Your task to perform on an android device: Go to notification settings Image 0: 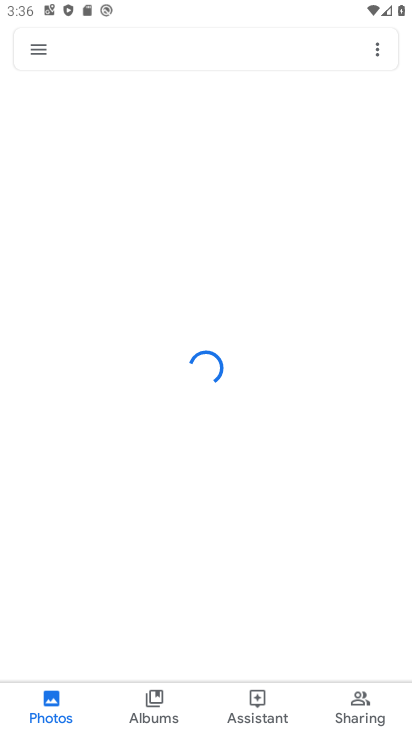
Step 0: press home button
Your task to perform on an android device: Go to notification settings Image 1: 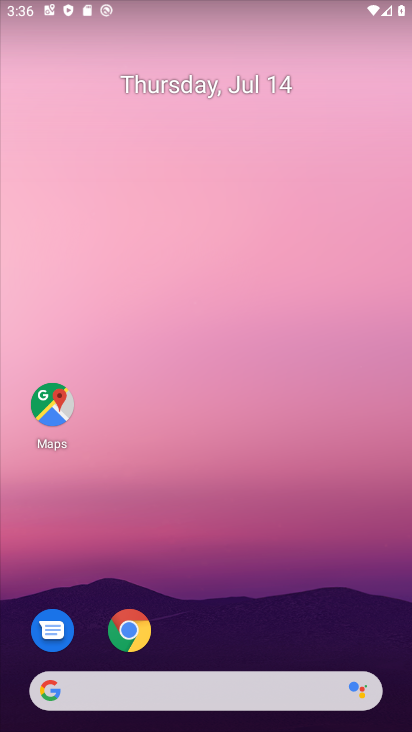
Step 1: drag from (240, 717) to (229, 252)
Your task to perform on an android device: Go to notification settings Image 2: 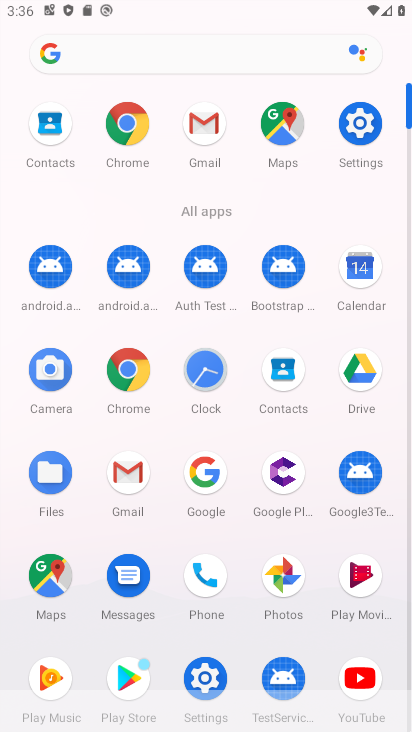
Step 2: click (358, 128)
Your task to perform on an android device: Go to notification settings Image 3: 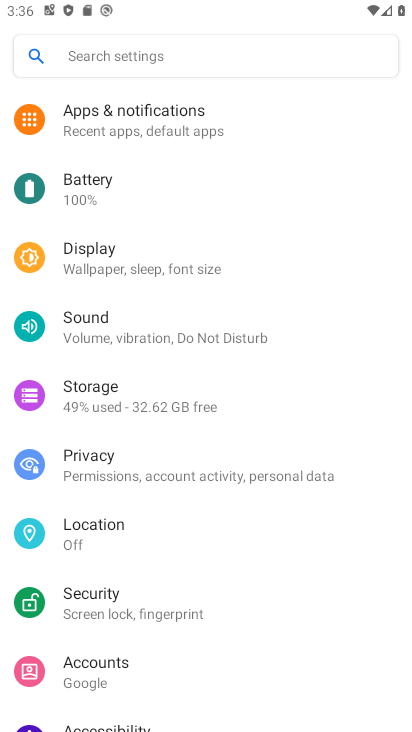
Step 3: click (127, 125)
Your task to perform on an android device: Go to notification settings Image 4: 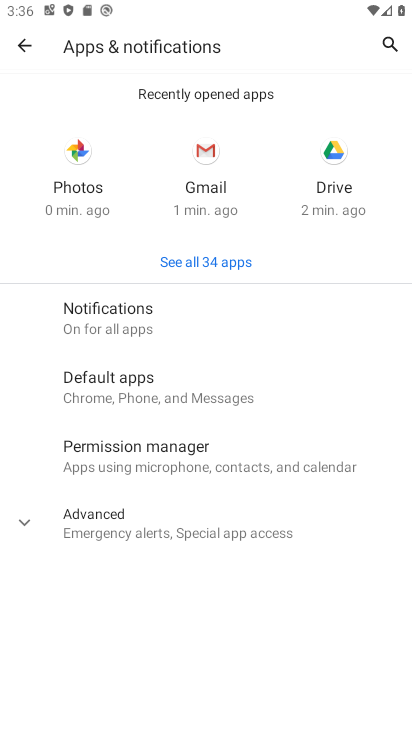
Step 4: click (100, 310)
Your task to perform on an android device: Go to notification settings Image 5: 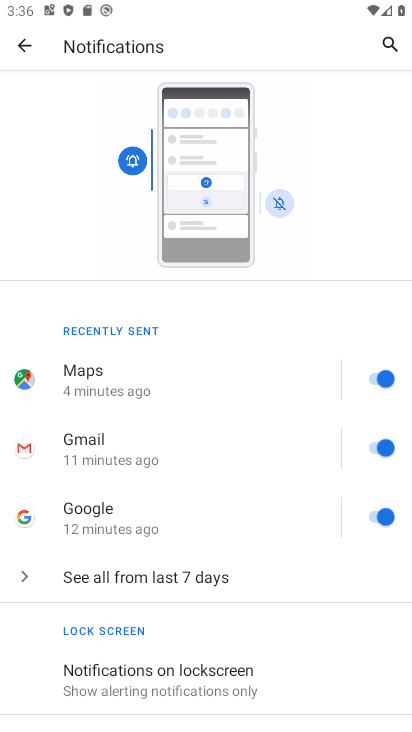
Step 5: task complete